Your task to perform on an android device: turn on notifications settings in the gmail app Image 0: 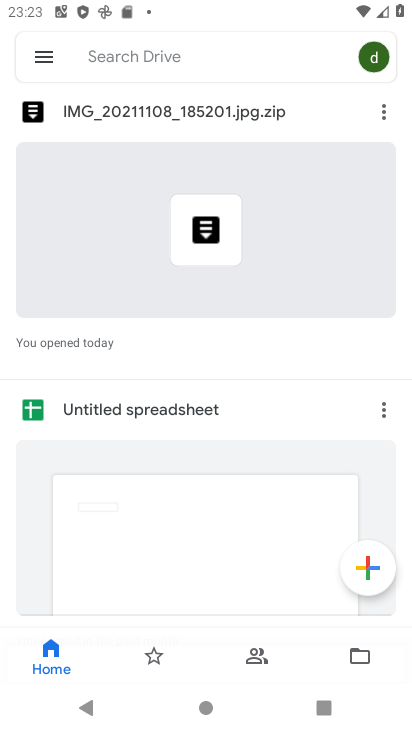
Step 0: press home button
Your task to perform on an android device: turn on notifications settings in the gmail app Image 1: 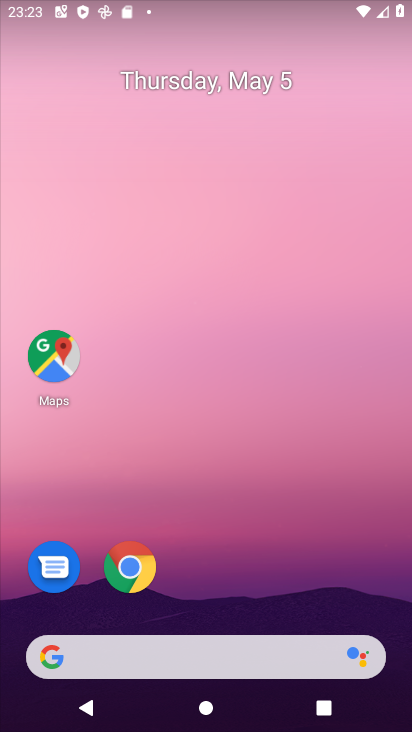
Step 1: drag from (275, 544) to (283, 1)
Your task to perform on an android device: turn on notifications settings in the gmail app Image 2: 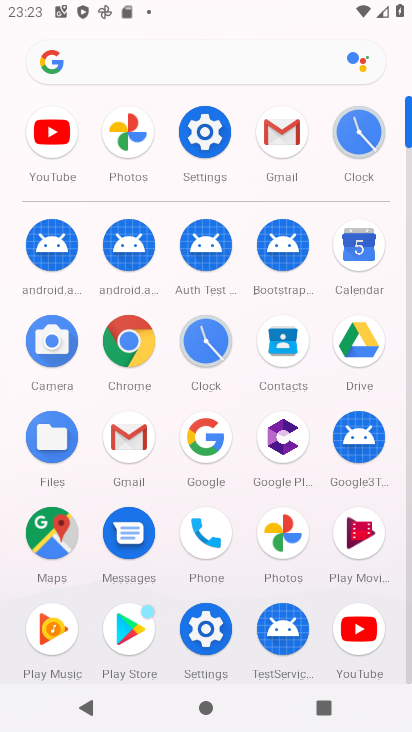
Step 2: click (274, 143)
Your task to perform on an android device: turn on notifications settings in the gmail app Image 3: 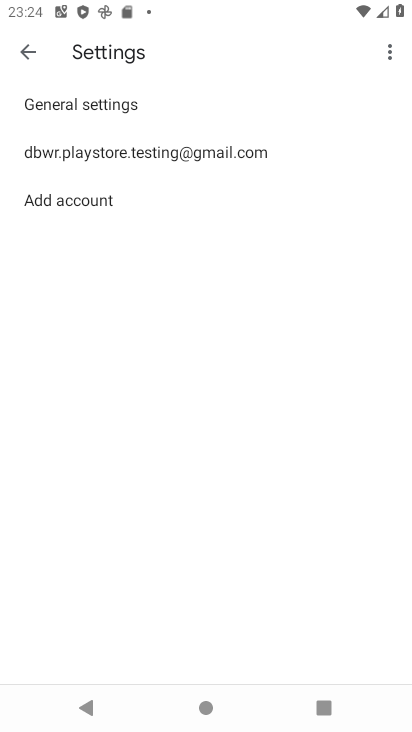
Step 3: click (216, 155)
Your task to perform on an android device: turn on notifications settings in the gmail app Image 4: 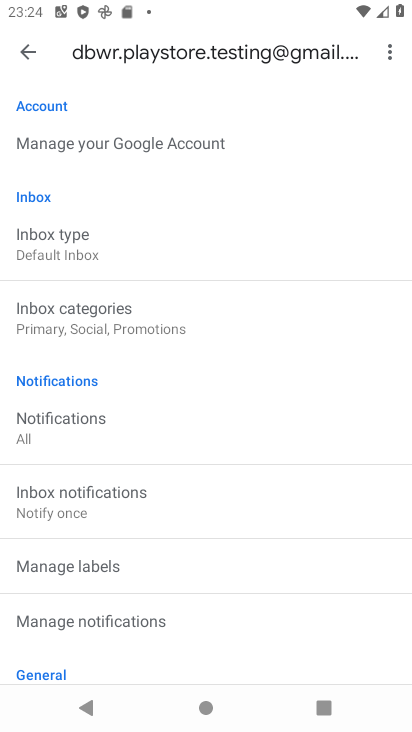
Step 4: click (115, 619)
Your task to perform on an android device: turn on notifications settings in the gmail app Image 5: 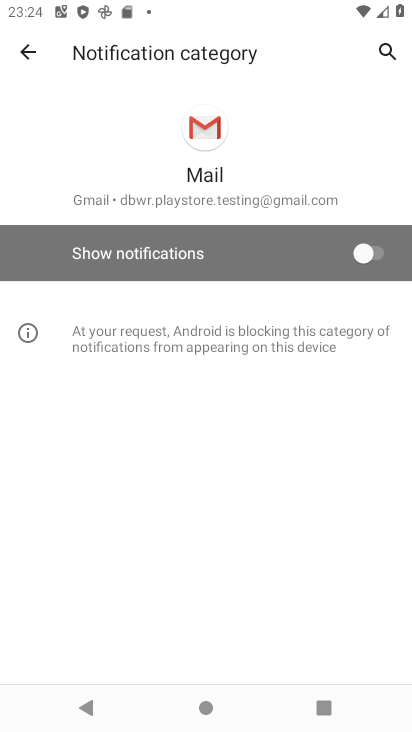
Step 5: click (377, 259)
Your task to perform on an android device: turn on notifications settings in the gmail app Image 6: 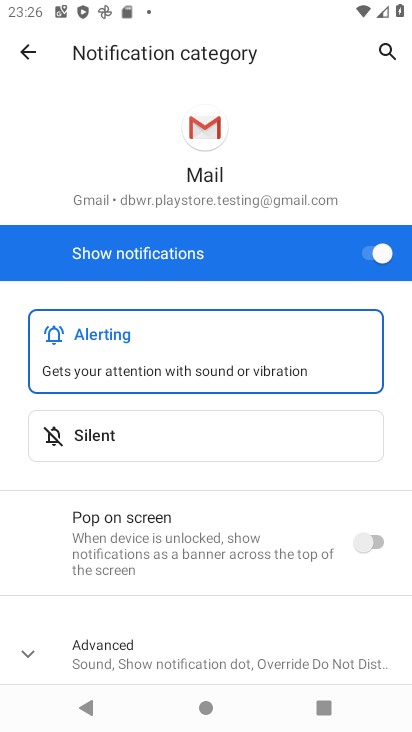
Step 6: task complete